Your task to perform on an android device: Open the web browser Image 0: 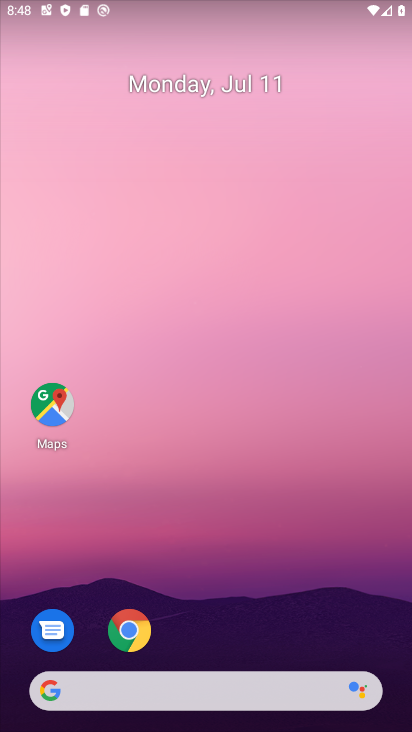
Step 0: click (120, 630)
Your task to perform on an android device: Open the web browser Image 1: 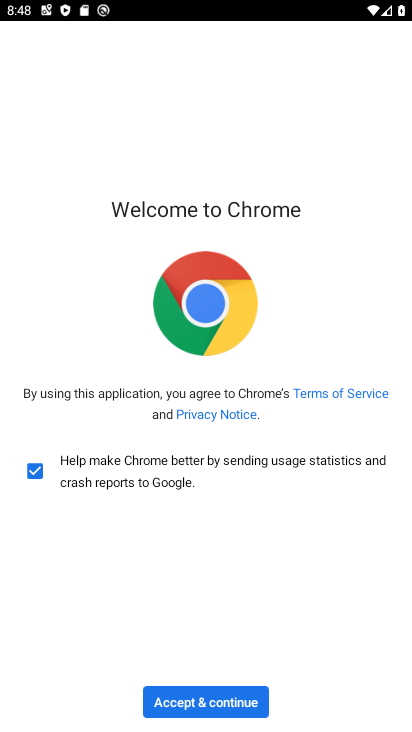
Step 1: click (202, 696)
Your task to perform on an android device: Open the web browser Image 2: 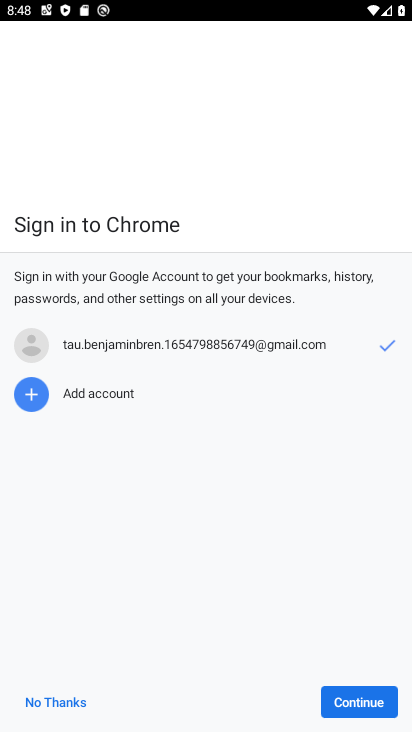
Step 2: click (358, 698)
Your task to perform on an android device: Open the web browser Image 3: 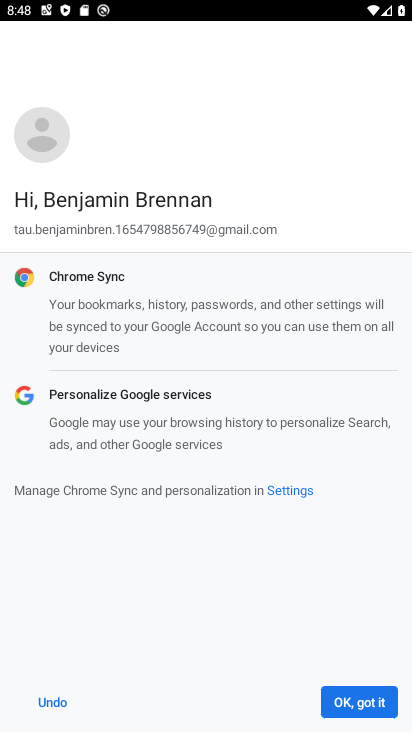
Step 3: click (358, 706)
Your task to perform on an android device: Open the web browser Image 4: 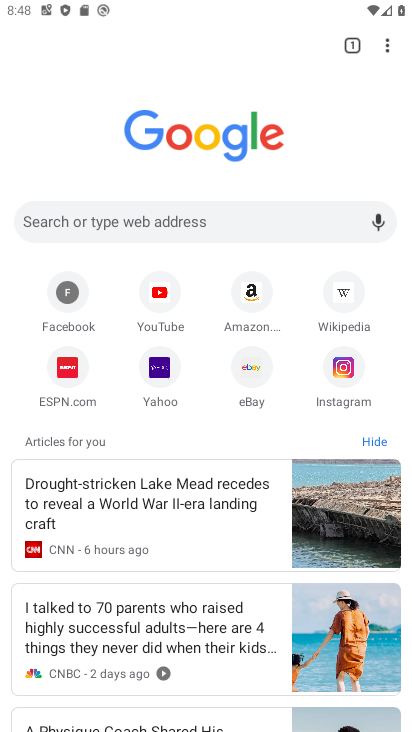
Step 4: task complete